Your task to perform on an android device: set the stopwatch Image 0: 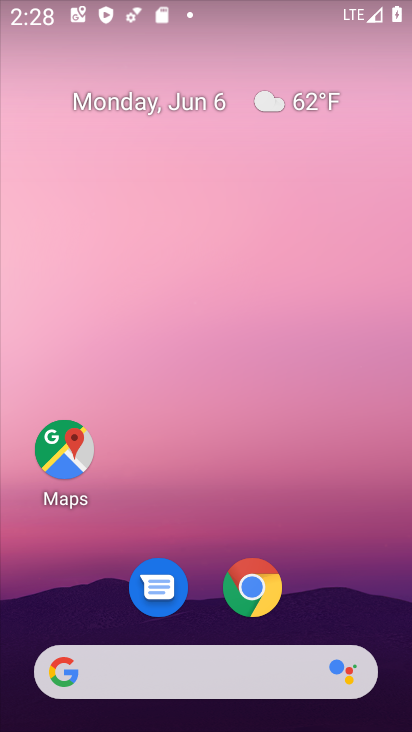
Step 0: drag from (357, 561) to (289, 31)
Your task to perform on an android device: set the stopwatch Image 1: 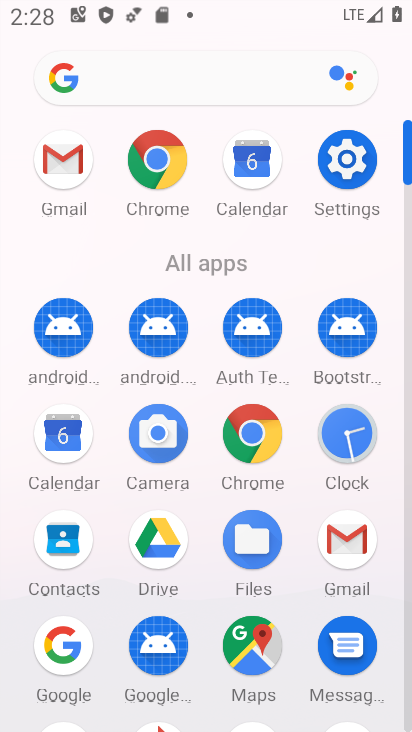
Step 1: click (345, 430)
Your task to perform on an android device: set the stopwatch Image 2: 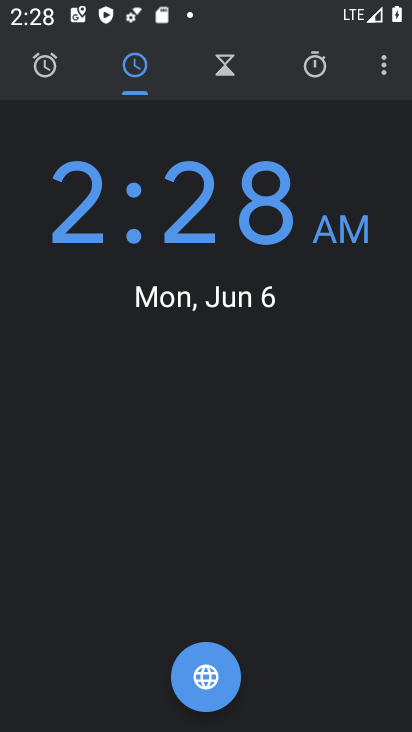
Step 2: click (311, 63)
Your task to perform on an android device: set the stopwatch Image 3: 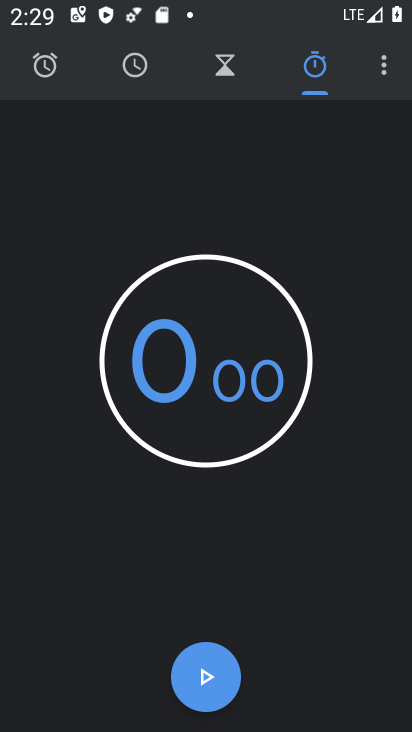
Step 3: click (227, 671)
Your task to perform on an android device: set the stopwatch Image 4: 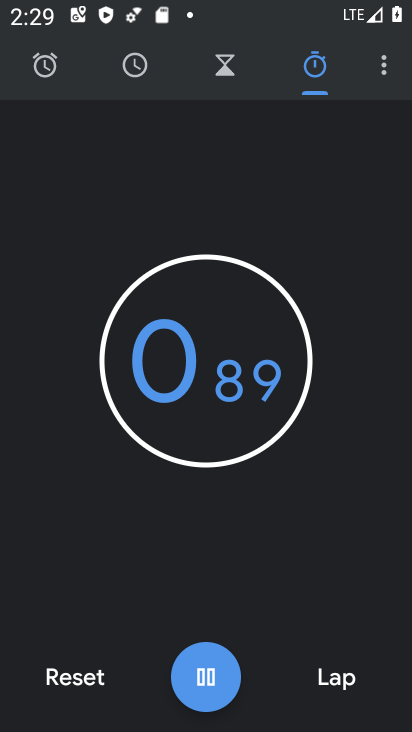
Step 4: task complete